Your task to perform on an android device: check out phone information Image 0: 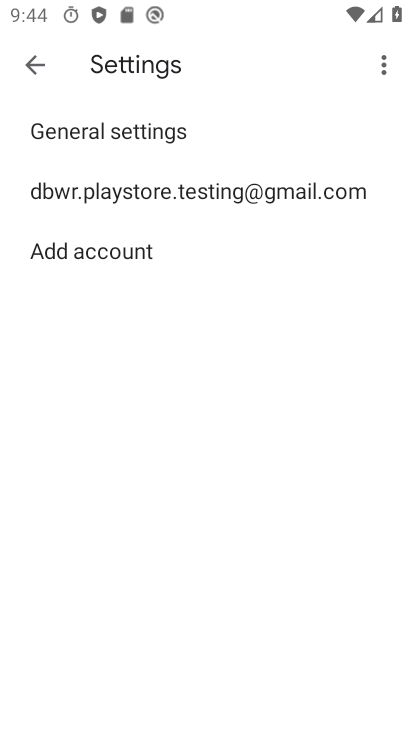
Step 0: press home button
Your task to perform on an android device: check out phone information Image 1: 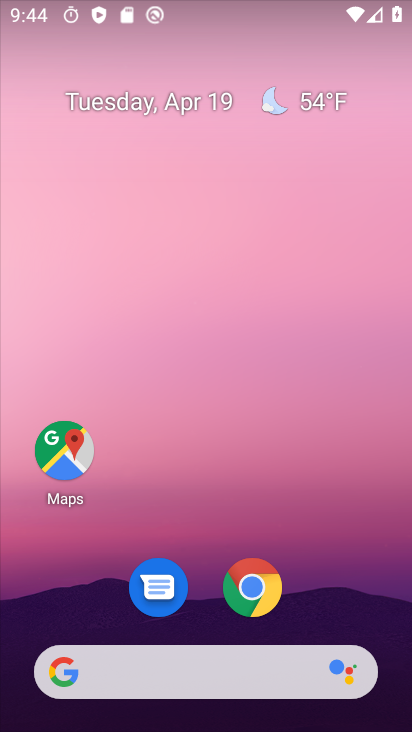
Step 1: drag from (329, 587) to (350, 120)
Your task to perform on an android device: check out phone information Image 2: 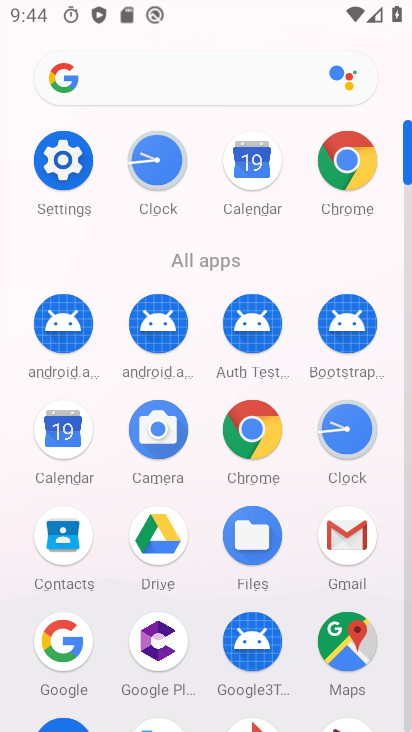
Step 2: click (62, 178)
Your task to perform on an android device: check out phone information Image 3: 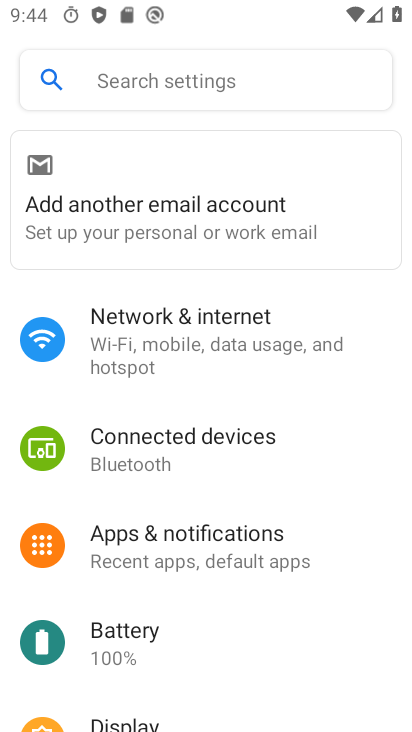
Step 3: drag from (239, 589) to (275, 207)
Your task to perform on an android device: check out phone information Image 4: 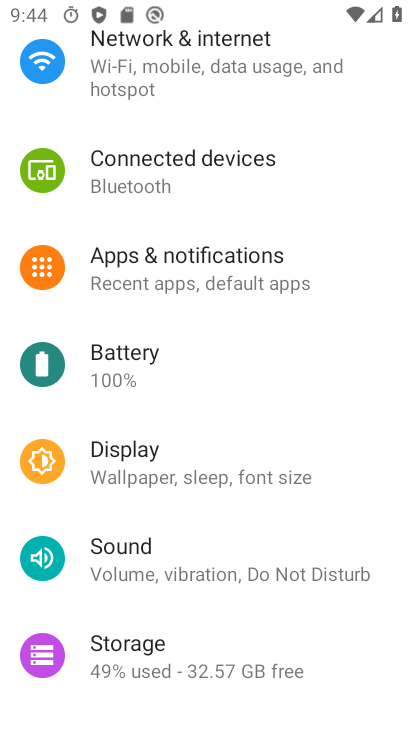
Step 4: drag from (260, 175) to (271, 134)
Your task to perform on an android device: check out phone information Image 5: 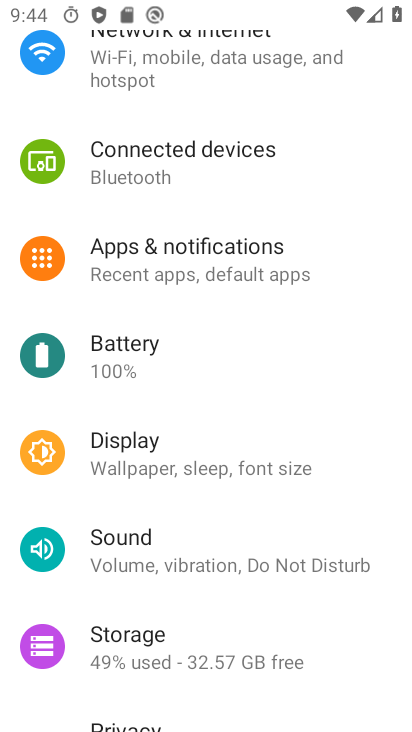
Step 5: drag from (205, 603) to (299, 222)
Your task to perform on an android device: check out phone information Image 6: 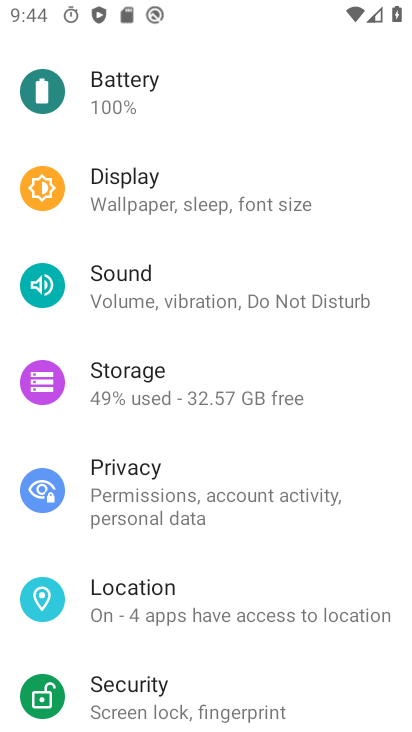
Step 6: drag from (251, 665) to (381, 203)
Your task to perform on an android device: check out phone information Image 7: 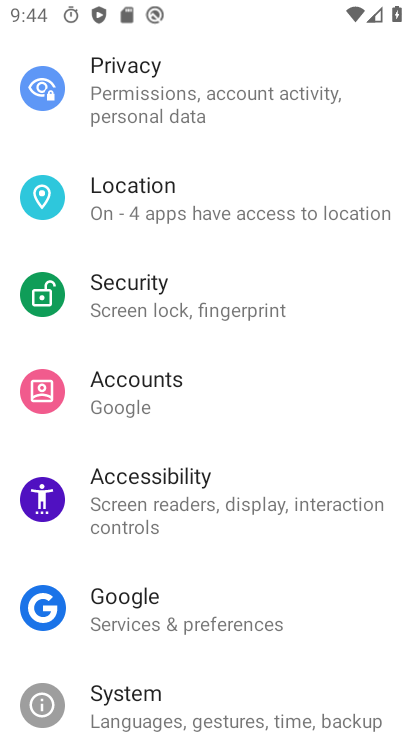
Step 7: drag from (299, 650) to (318, 192)
Your task to perform on an android device: check out phone information Image 8: 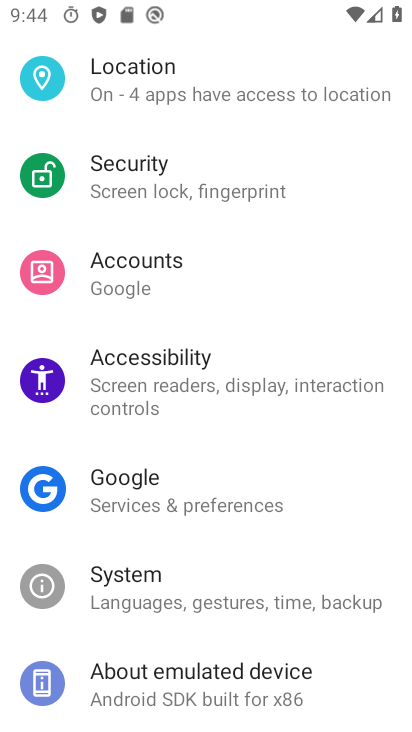
Step 8: drag from (257, 654) to (307, 222)
Your task to perform on an android device: check out phone information Image 9: 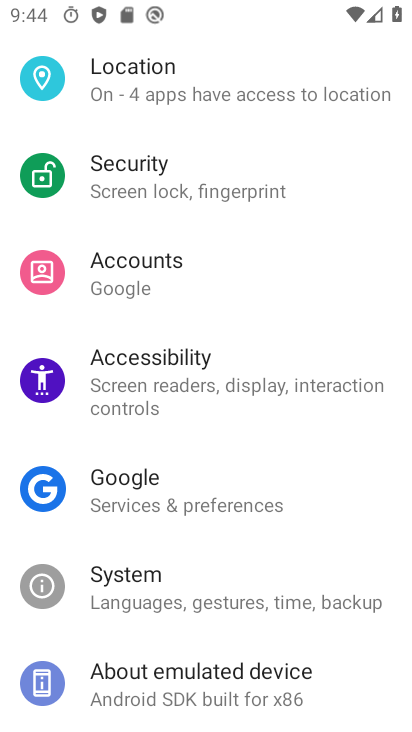
Step 9: click (174, 674)
Your task to perform on an android device: check out phone information Image 10: 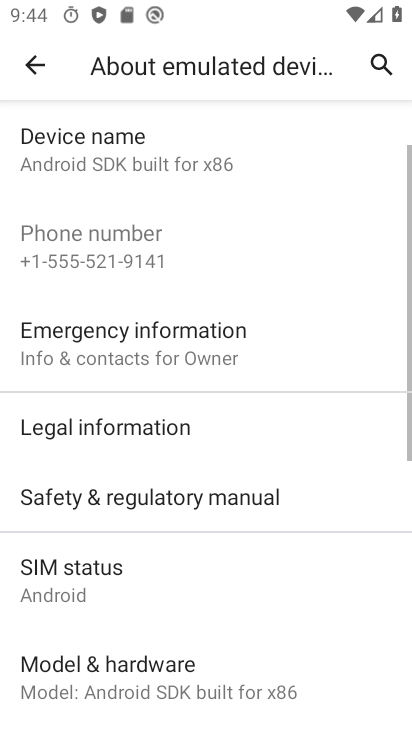
Step 10: task complete